Your task to perform on an android device: Turn off the flashlight Image 0: 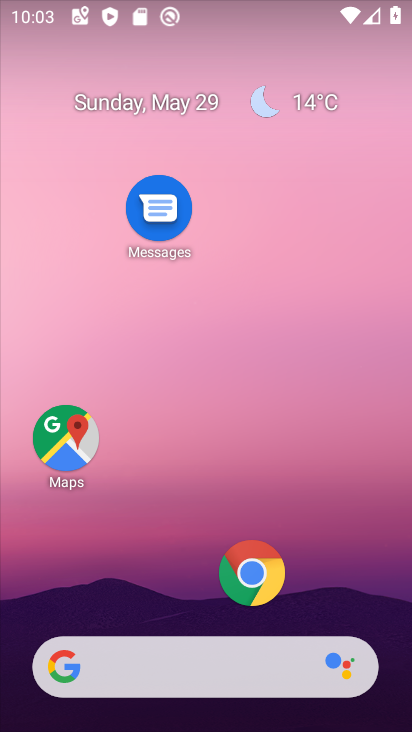
Step 0: drag from (169, 607) to (248, 74)
Your task to perform on an android device: Turn off the flashlight Image 1: 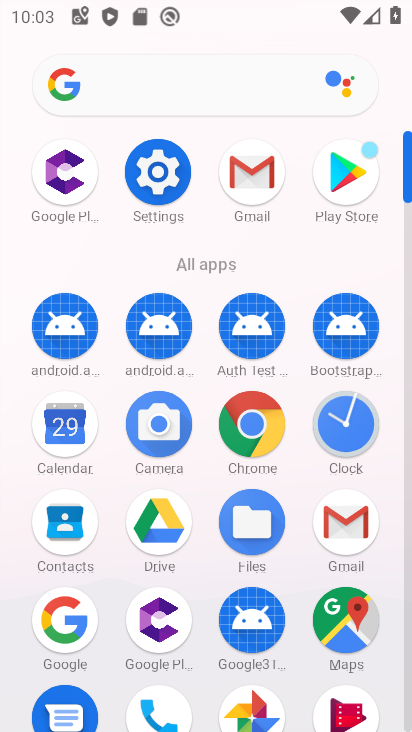
Step 1: click (165, 164)
Your task to perform on an android device: Turn off the flashlight Image 2: 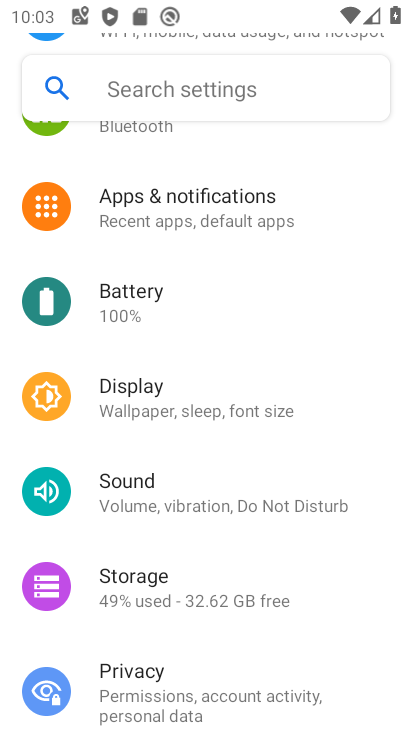
Step 2: task complete